Your task to perform on an android device: toggle show notifications on the lock screen Image 0: 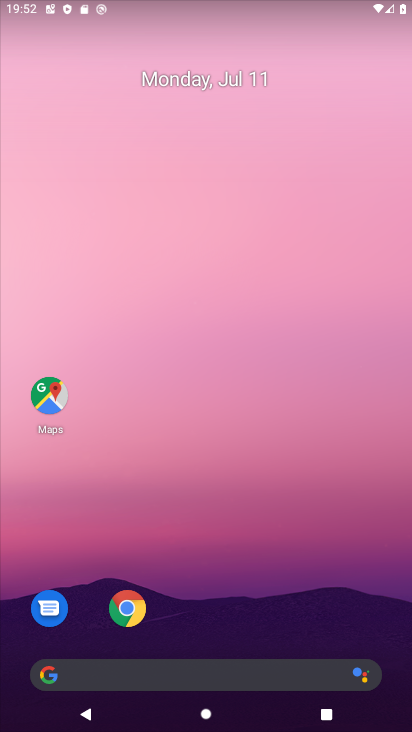
Step 0: drag from (261, 622) to (397, 21)
Your task to perform on an android device: toggle show notifications on the lock screen Image 1: 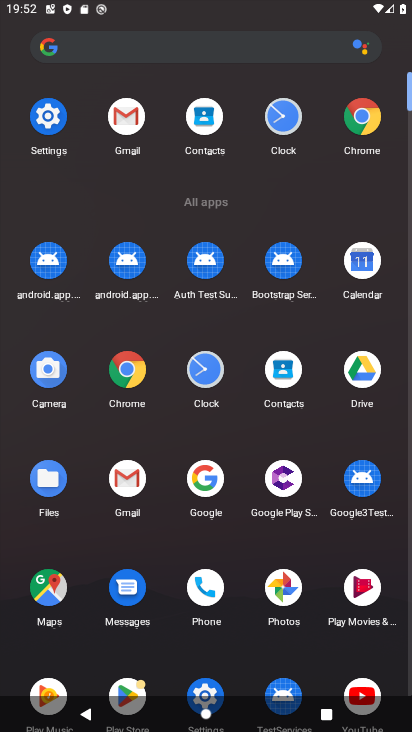
Step 1: click (56, 170)
Your task to perform on an android device: toggle show notifications on the lock screen Image 2: 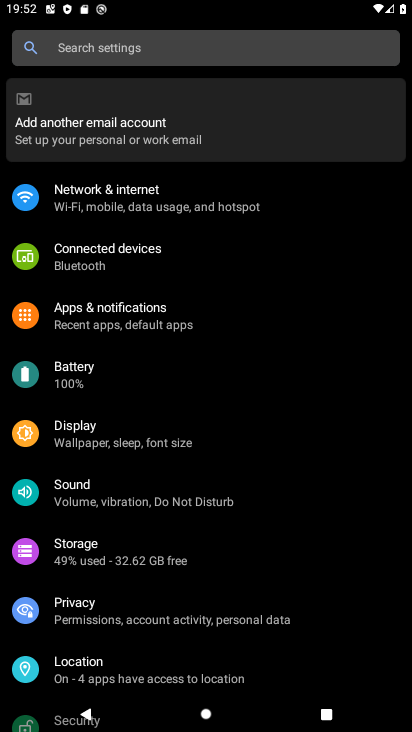
Step 2: click (171, 318)
Your task to perform on an android device: toggle show notifications on the lock screen Image 3: 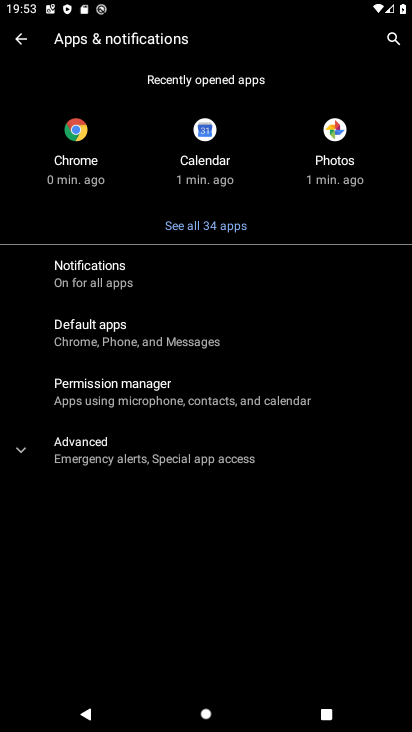
Step 3: click (146, 440)
Your task to perform on an android device: toggle show notifications on the lock screen Image 4: 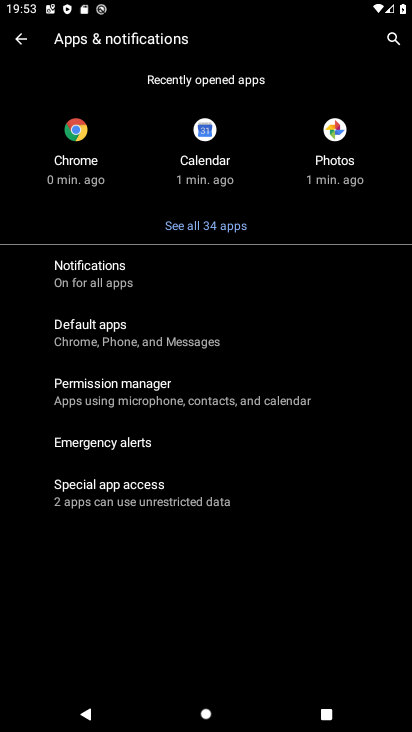
Step 4: click (142, 256)
Your task to perform on an android device: toggle show notifications on the lock screen Image 5: 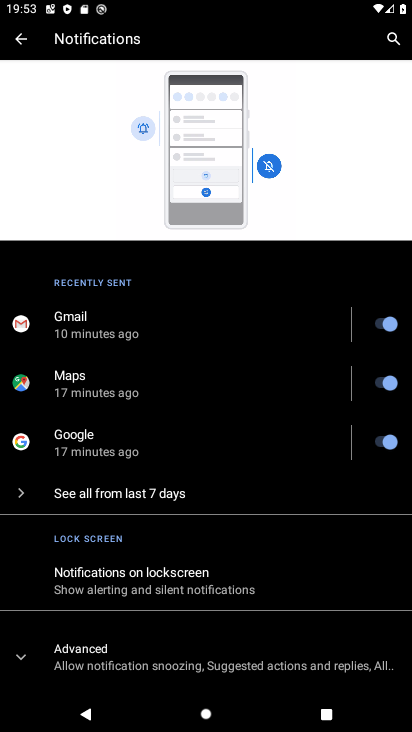
Step 5: click (210, 561)
Your task to perform on an android device: toggle show notifications on the lock screen Image 6: 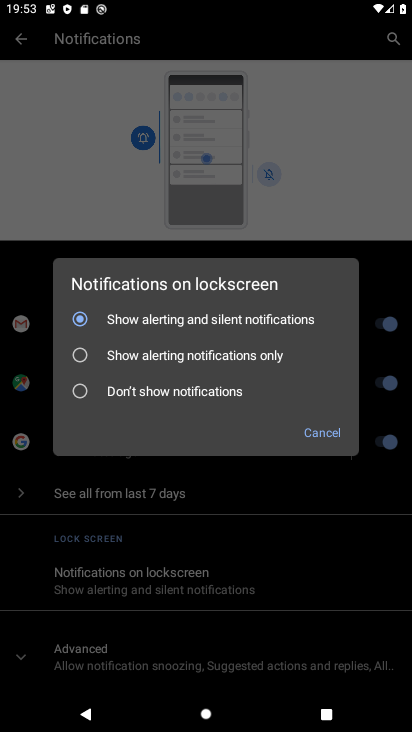
Step 6: click (200, 353)
Your task to perform on an android device: toggle show notifications on the lock screen Image 7: 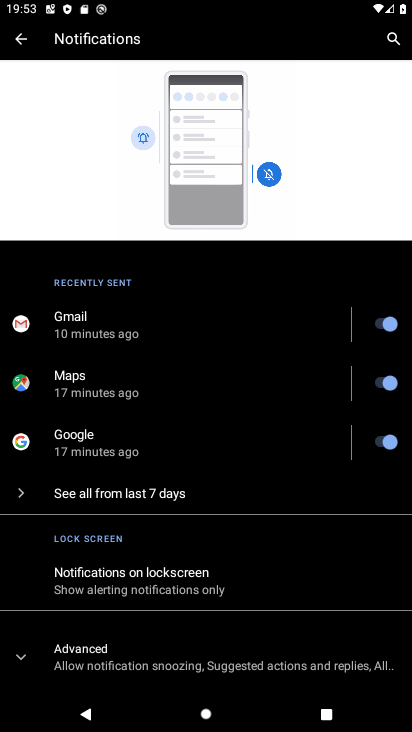
Step 7: task complete